Your task to perform on an android device: Open Google Maps and go to "Timeline" Image 0: 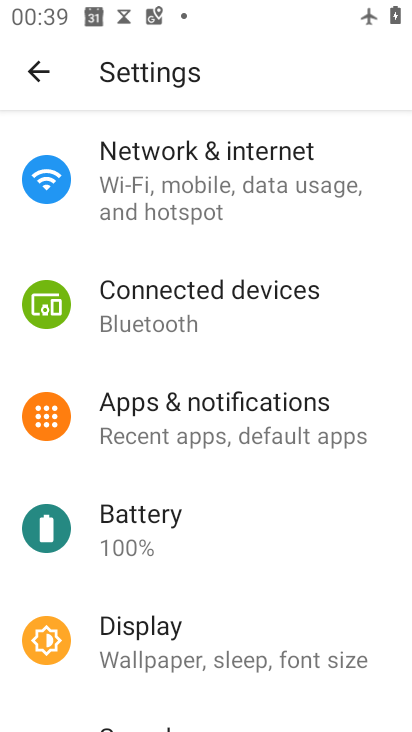
Step 0: press home button
Your task to perform on an android device: Open Google Maps and go to "Timeline" Image 1: 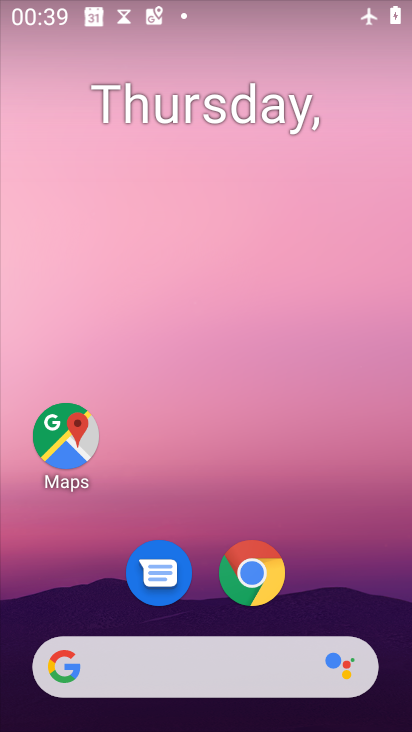
Step 1: click (66, 438)
Your task to perform on an android device: Open Google Maps and go to "Timeline" Image 2: 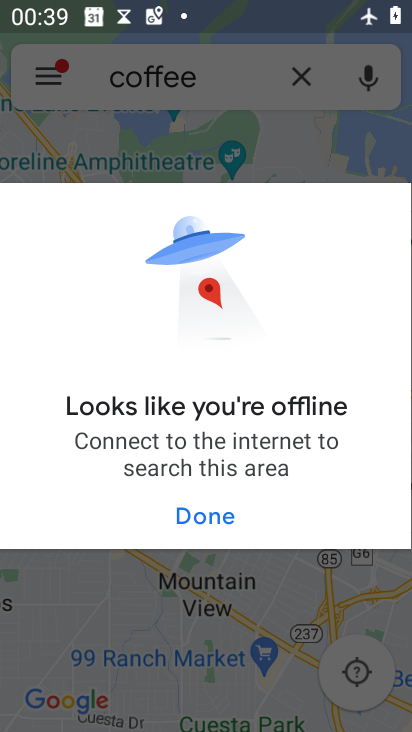
Step 2: click (211, 525)
Your task to perform on an android device: Open Google Maps and go to "Timeline" Image 3: 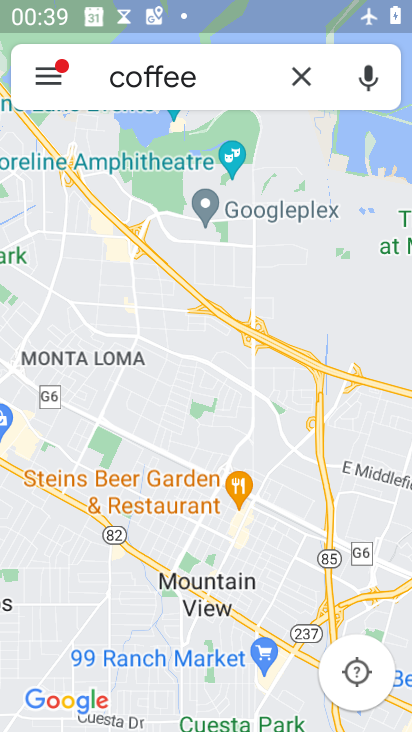
Step 3: click (51, 70)
Your task to perform on an android device: Open Google Maps and go to "Timeline" Image 4: 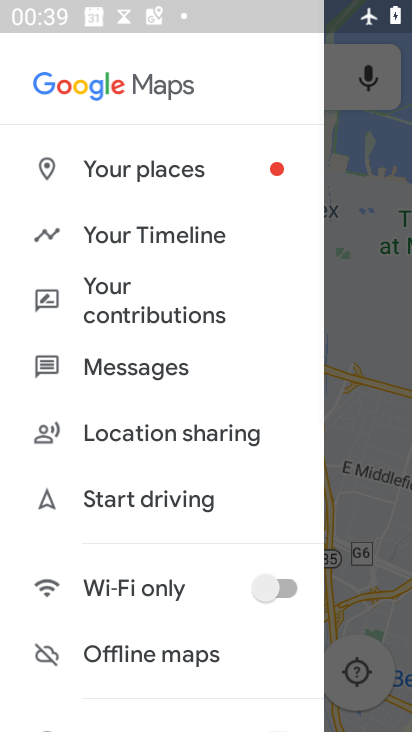
Step 4: click (153, 234)
Your task to perform on an android device: Open Google Maps and go to "Timeline" Image 5: 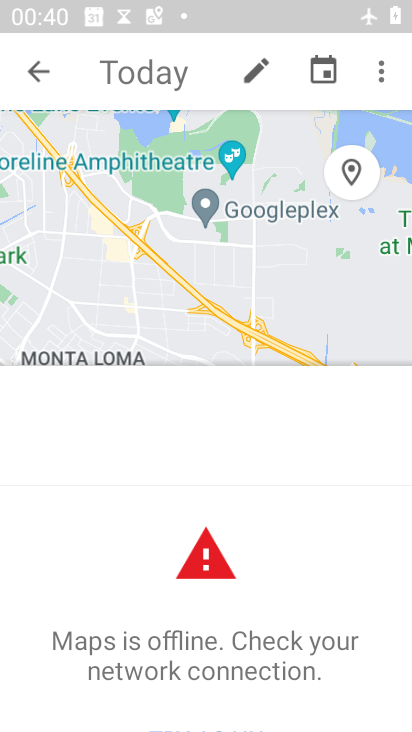
Step 5: task complete